Your task to perform on an android device: Go to privacy settings Image 0: 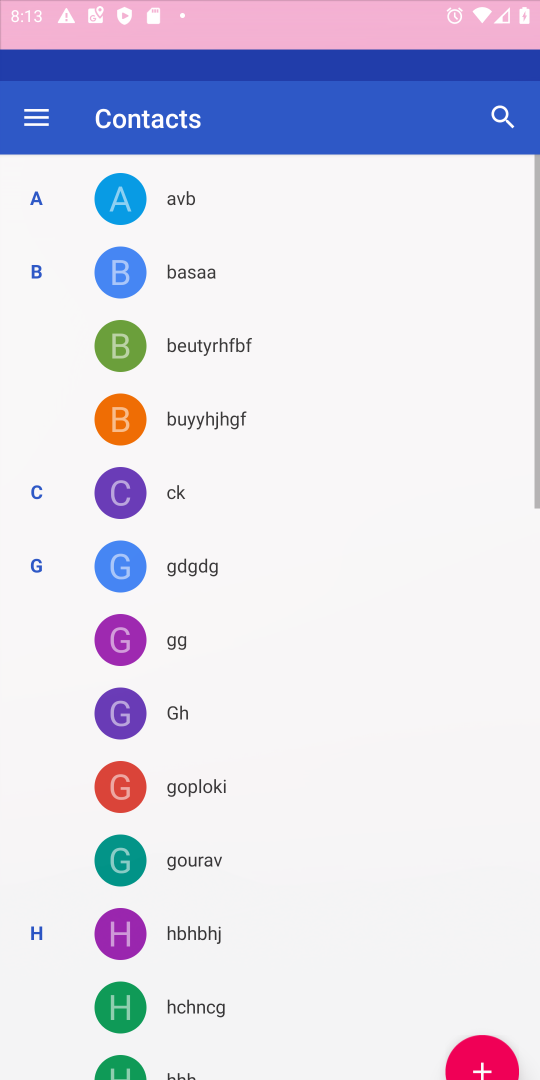
Step 0: press home button
Your task to perform on an android device: Go to privacy settings Image 1: 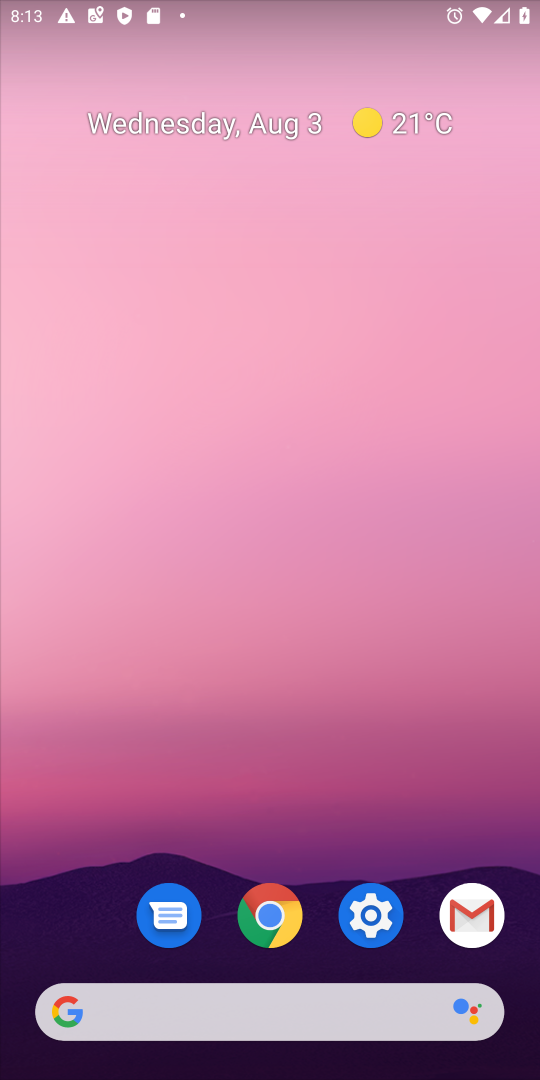
Step 1: drag from (305, 970) to (239, 406)
Your task to perform on an android device: Go to privacy settings Image 2: 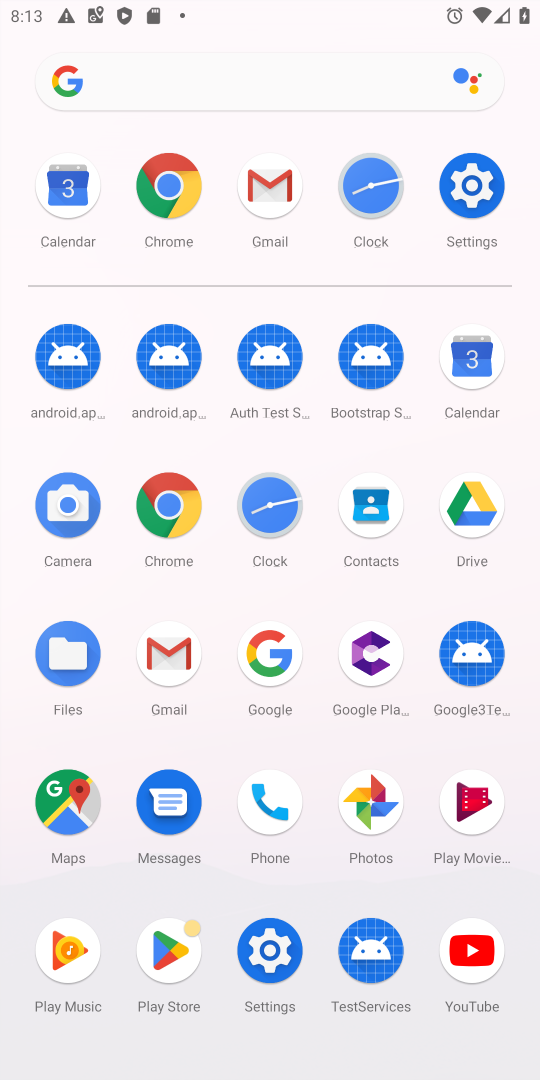
Step 2: click (56, 795)
Your task to perform on an android device: Go to privacy settings Image 3: 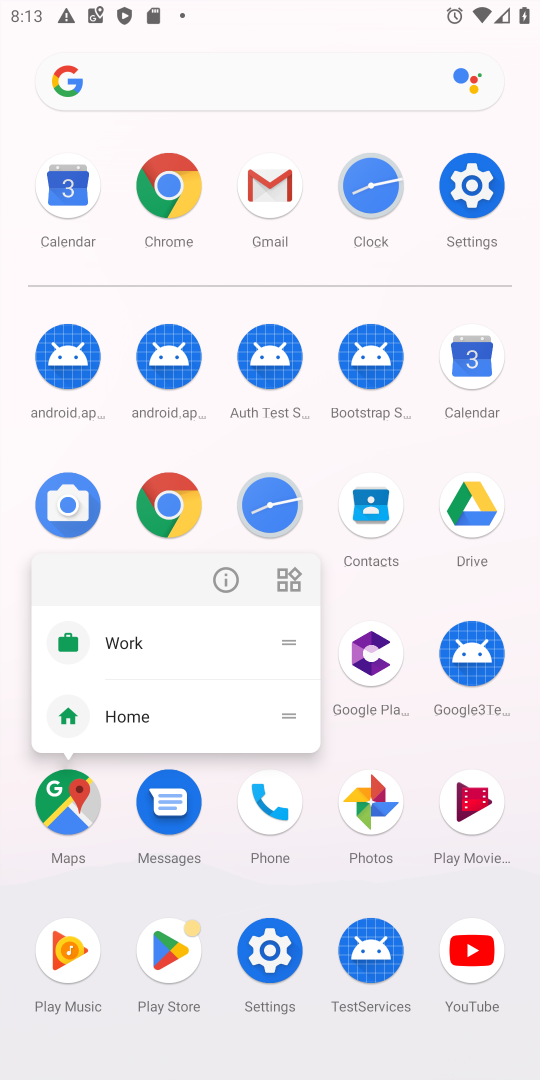
Step 3: click (251, 959)
Your task to perform on an android device: Go to privacy settings Image 4: 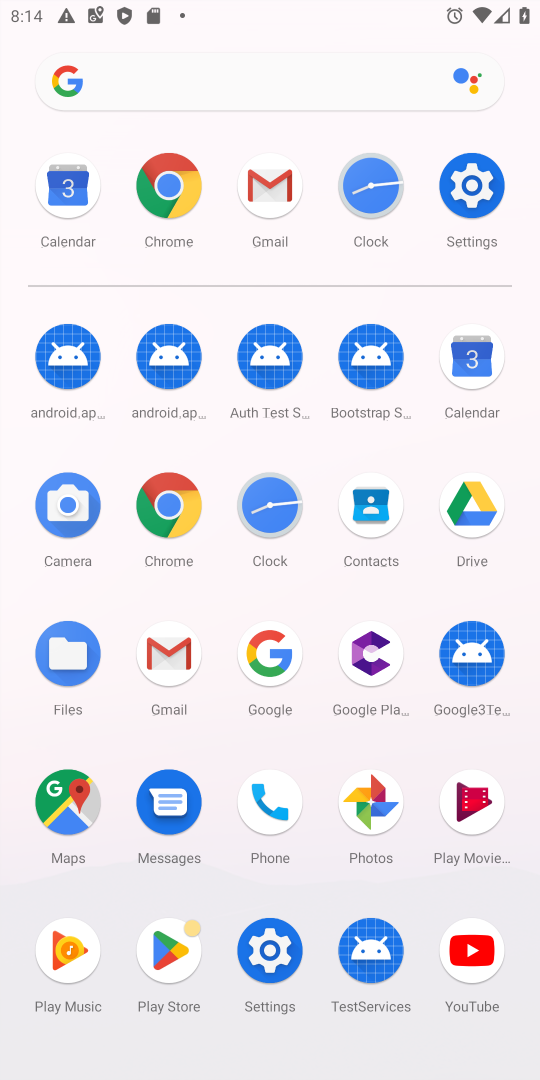
Step 4: click (484, 198)
Your task to perform on an android device: Go to privacy settings Image 5: 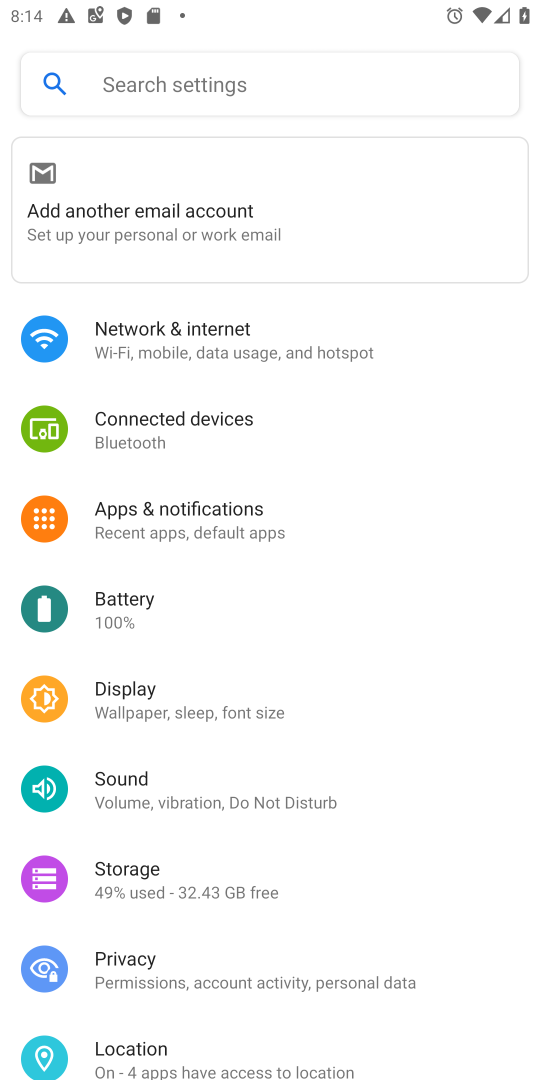
Step 5: drag from (172, 1021) to (163, 689)
Your task to perform on an android device: Go to privacy settings Image 6: 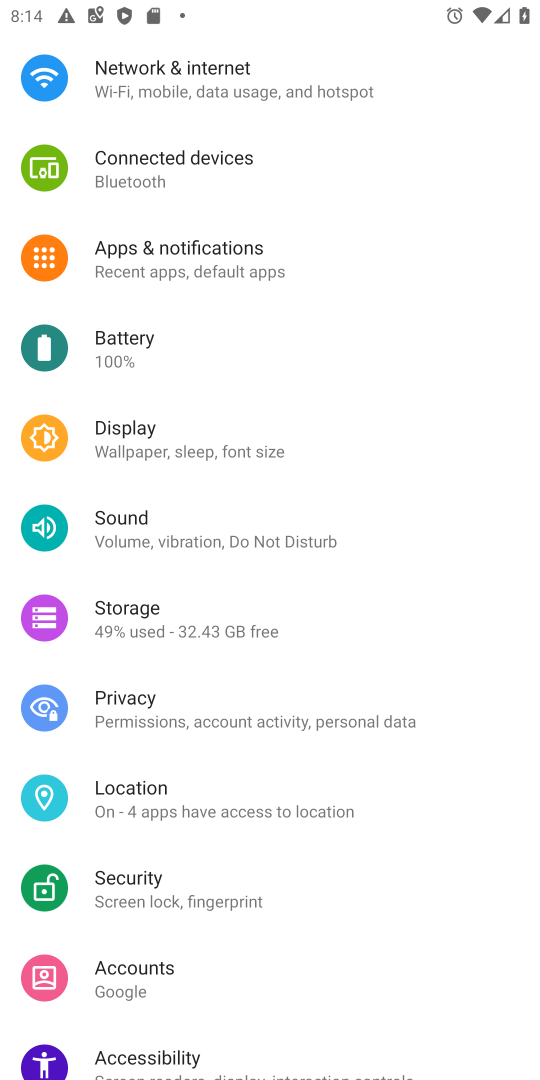
Step 6: click (167, 733)
Your task to perform on an android device: Go to privacy settings Image 7: 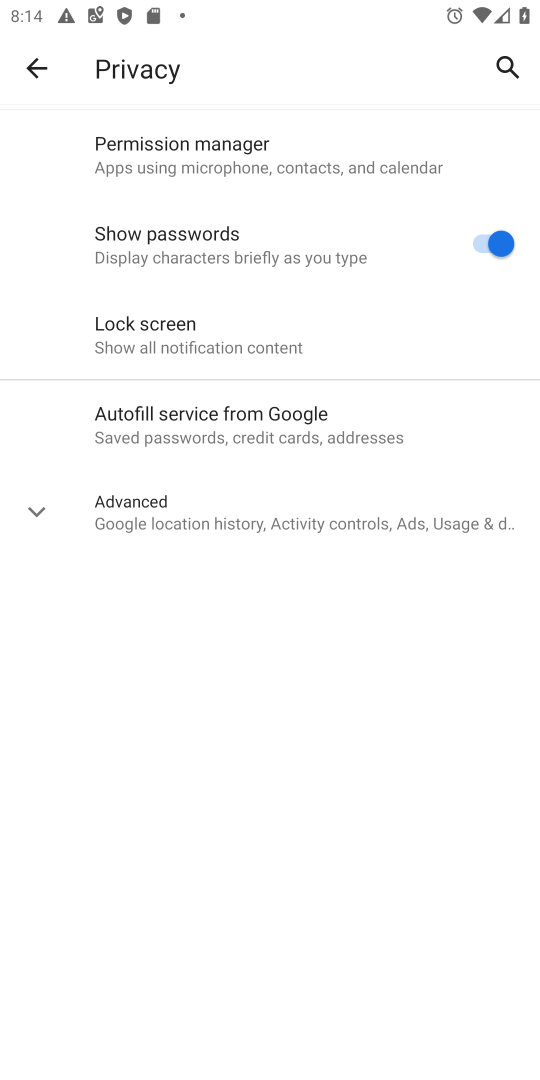
Step 7: click (71, 510)
Your task to perform on an android device: Go to privacy settings Image 8: 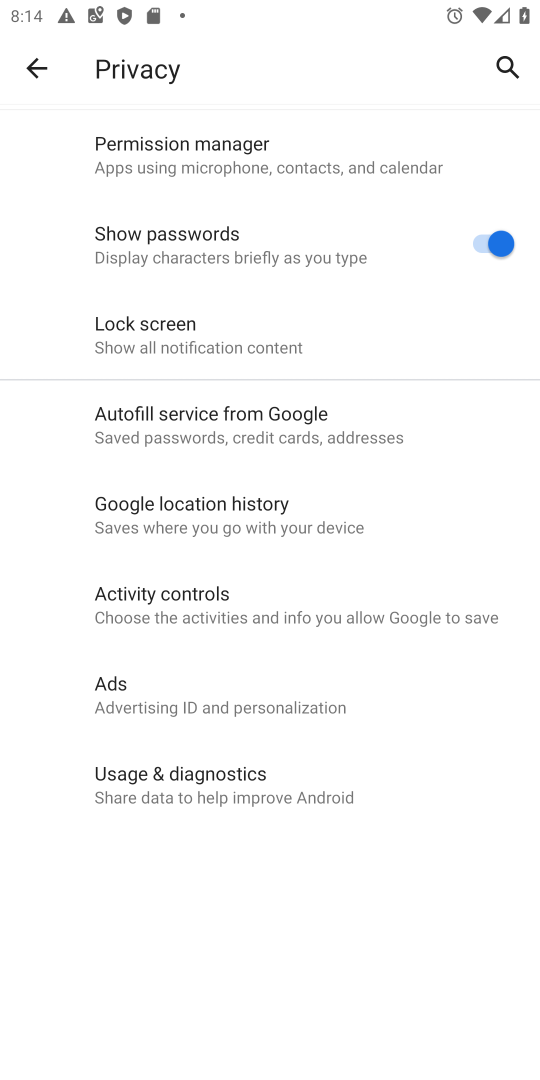
Step 8: task complete